Your task to perform on an android device: Turn off the flashlight Image 0: 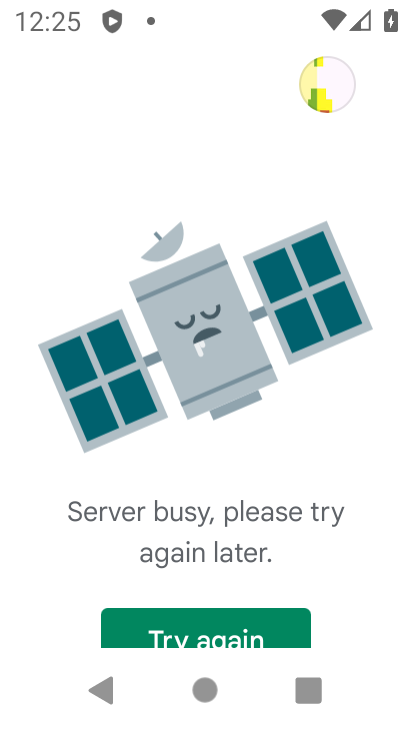
Step 0: press home button
Your task to perform on an android device: Turn off the flashlight Image 1: 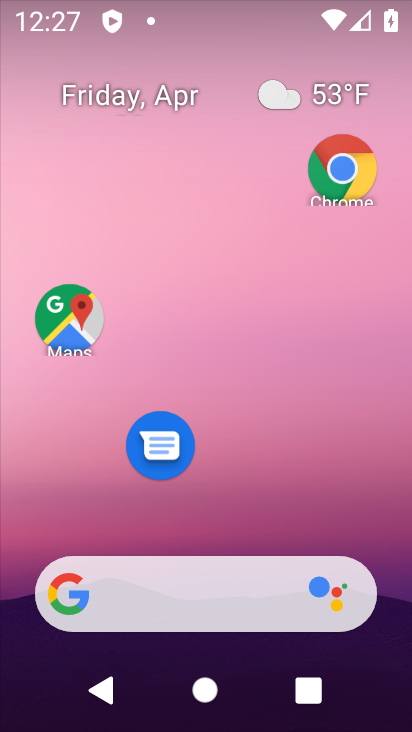
Step 1: drag from (258, 515) to (270, 110)
Your task to perform on an android device: Turn off the flashlight Image 2: 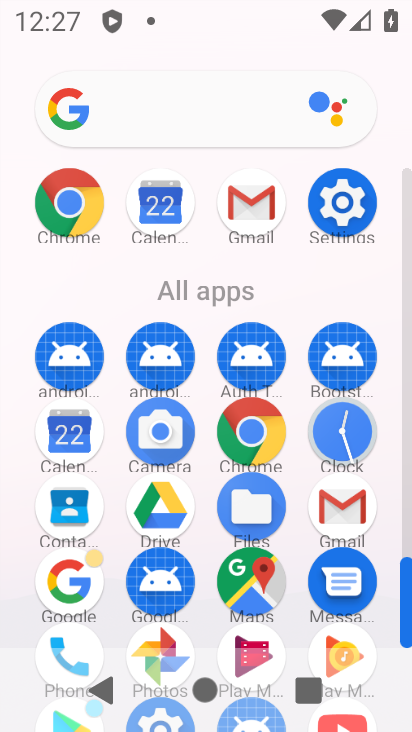
Step 2: click (336, 220)
Your task to perform on an android device: Turn off the flashlight Image 3: 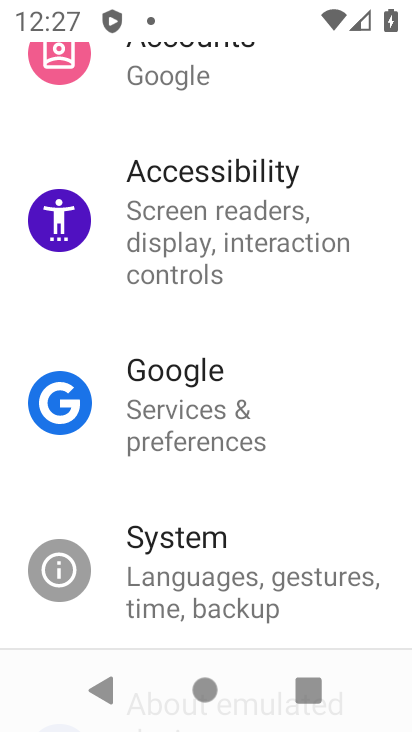
Step 3: task complete